Your task to perform on an android device: Go to battery settings Image 0: 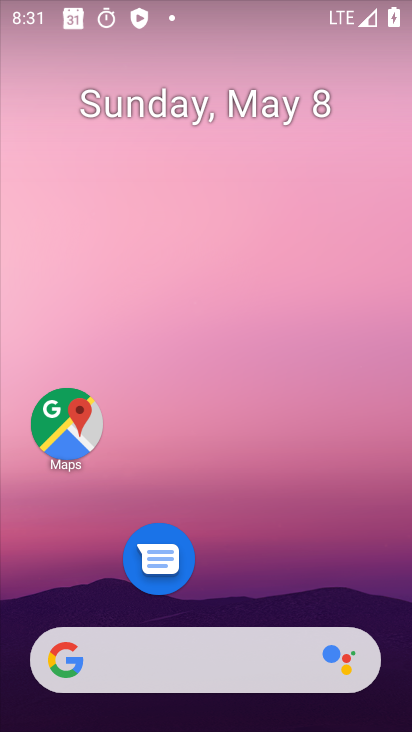
Step 0: drag from (313, 623) to (282, 85)
Your task to perform on an android device: Go to battery settings Image 1: 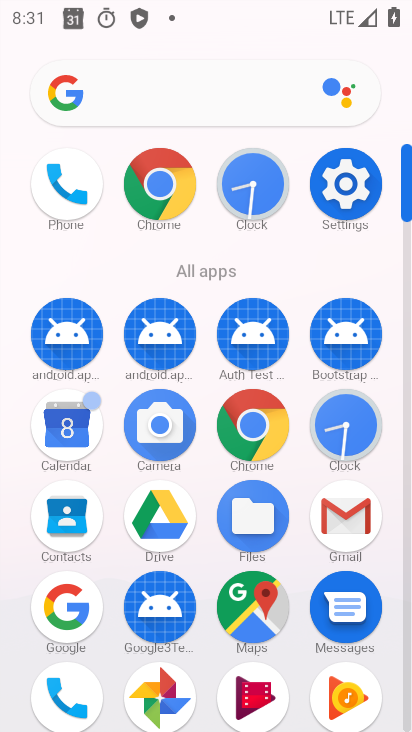
Step 1: drag from (286, 644) to (311, 238)
Your task to perform on an android device: Go to battery settings Image 2: 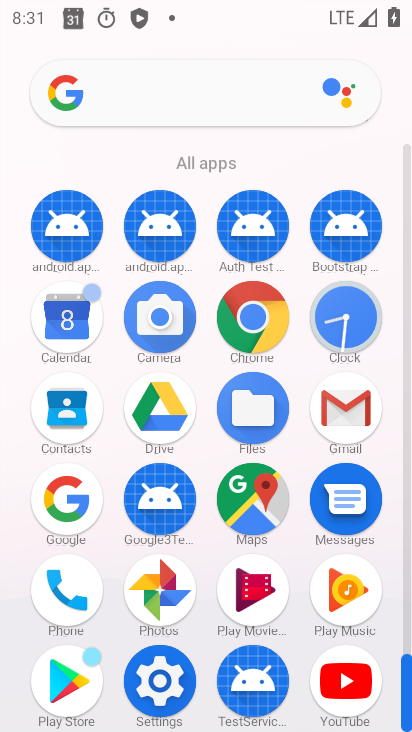
Step 2: drag from (289, 654) to (253, 399)
Your task to perform on an android device: Go to battery settings Image 3: 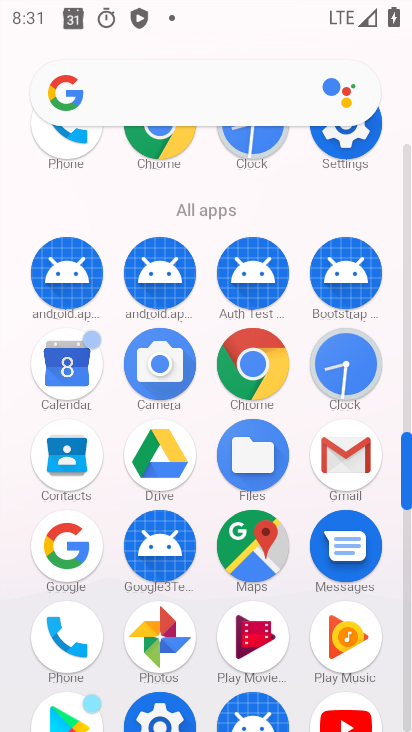
Step 3: click (169, 721)
Your task to perform on an android device: Go to battery settings Image 4: 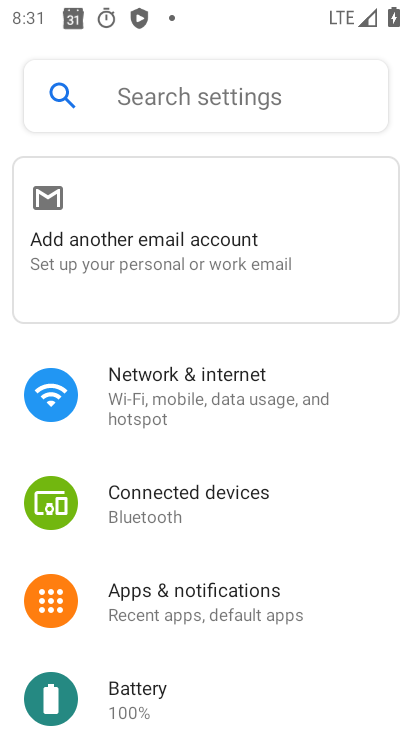
Step 4: click (199, 700)
Your task to perform on an android device: Go to battery settings Image 5: 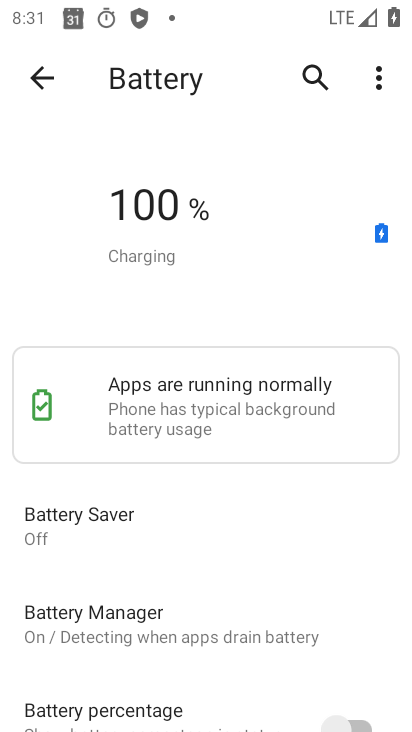
Step 5: task complete